Your task to perform on an android device: Show me recent news Image 0: 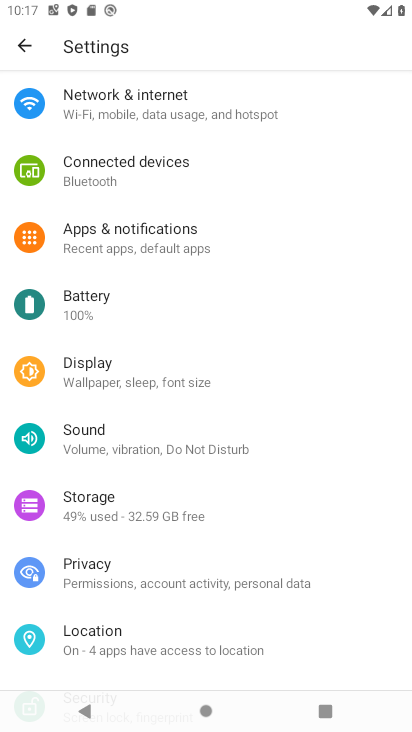
Step 0: press home button
Your task to perform on an android device: Show me recent news Image 1: 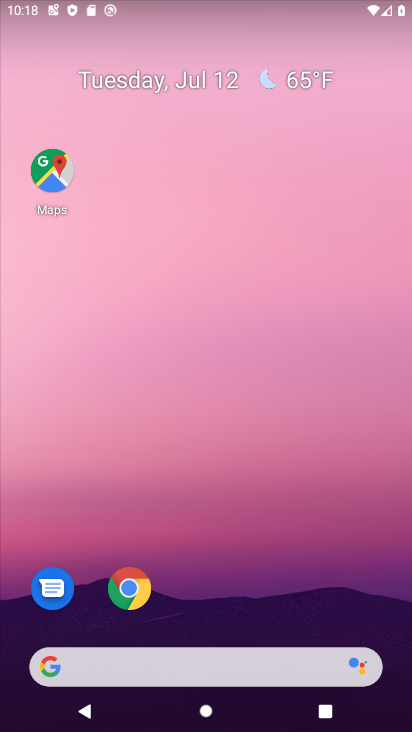
Step 1: click (81, 660)
Your task to perform on an android device: Show me recent news Image 2: 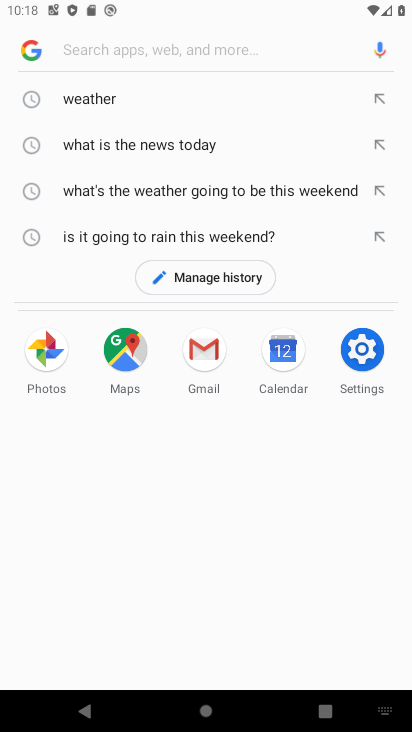
Step 2: click (79, 48)
Your task to perform on an android device: Show me recent news Image 3: 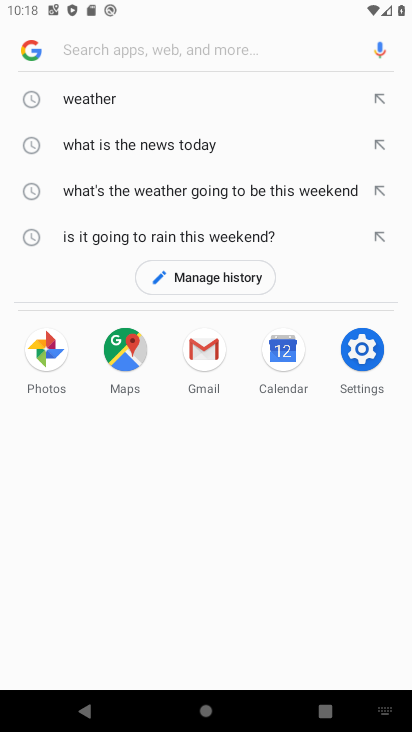
Step 3: type "Show me recent news"
Your task to perform on an android device: Show me recent news Image 4: 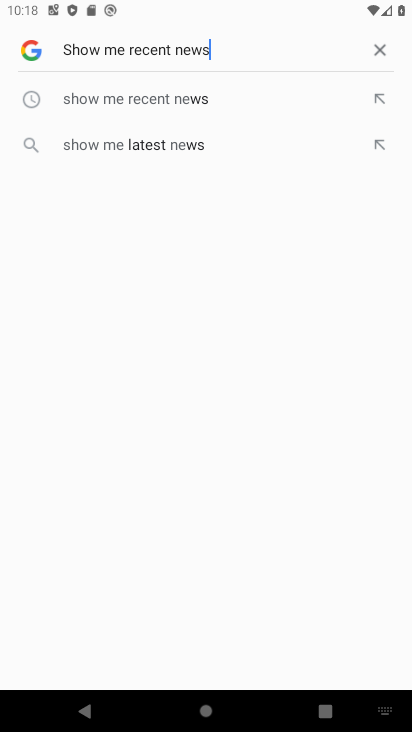
Step 4: type ""
Your task to perform on an android device: Show me recent news Image 5: 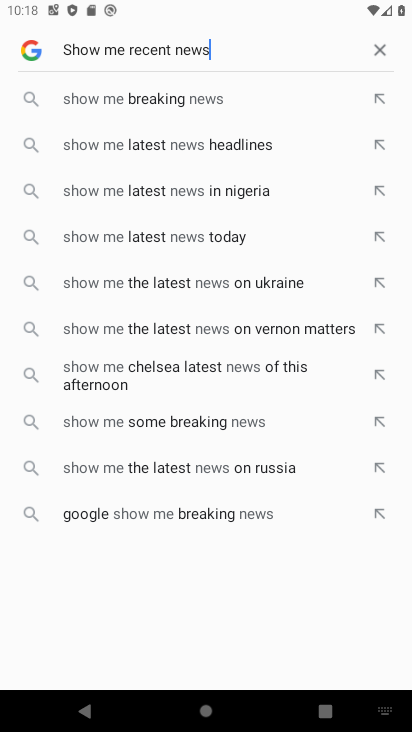
Step 5: click (246, 51)
Your task to perform on an android device: Show me recent news Image 6: 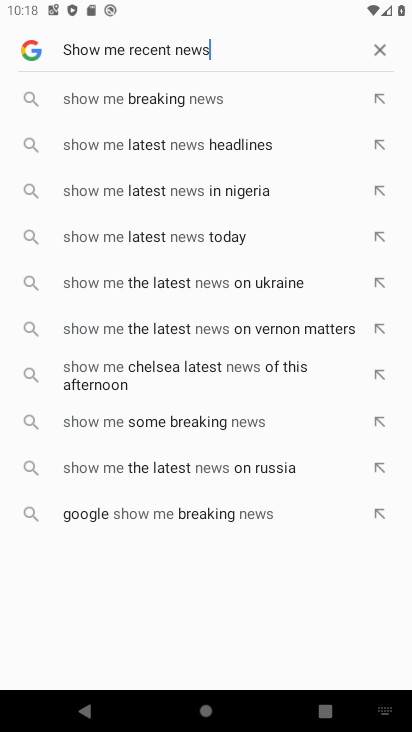
Step 6: task complete